Your task to perform on an android device: What is the recent news? Image 0: 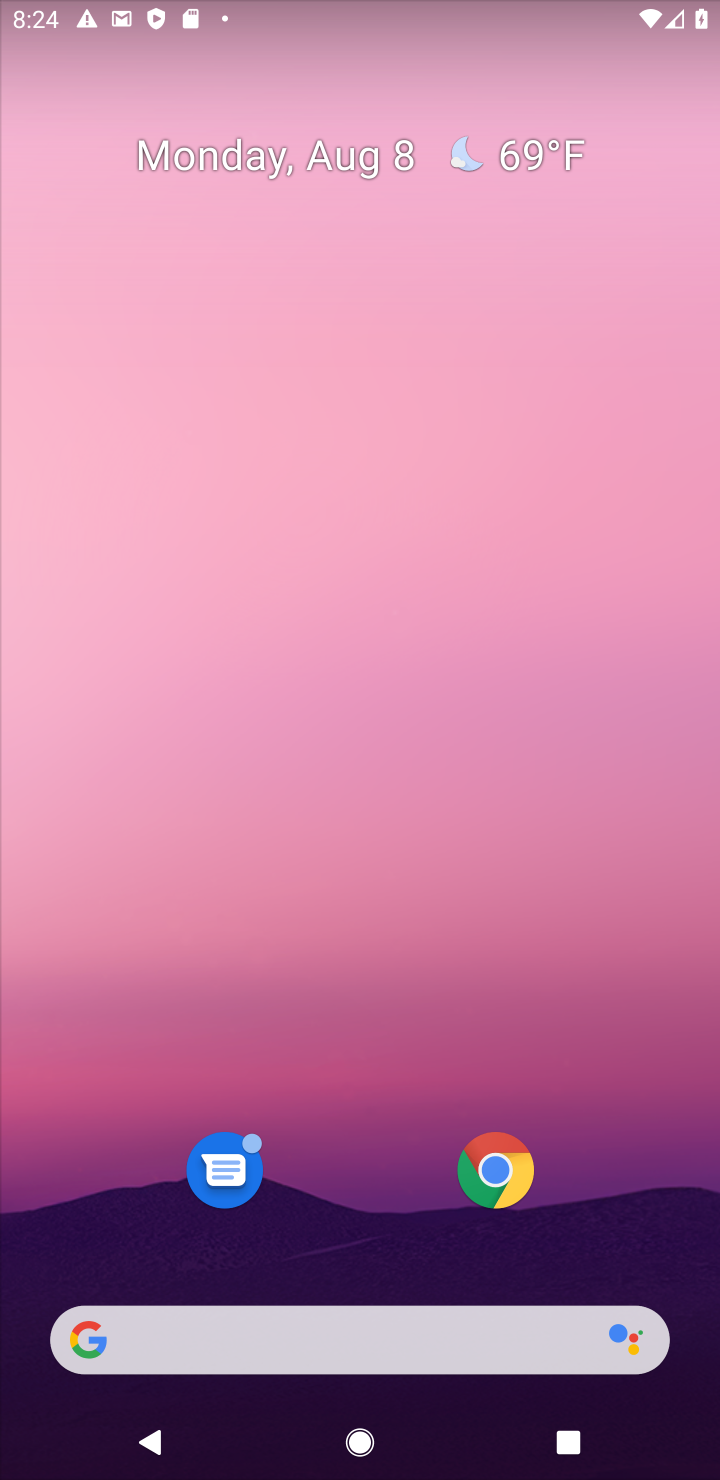
Step 0: click (467, 1333)
Your task to perform on an android device: What is the recent news? Image 1: 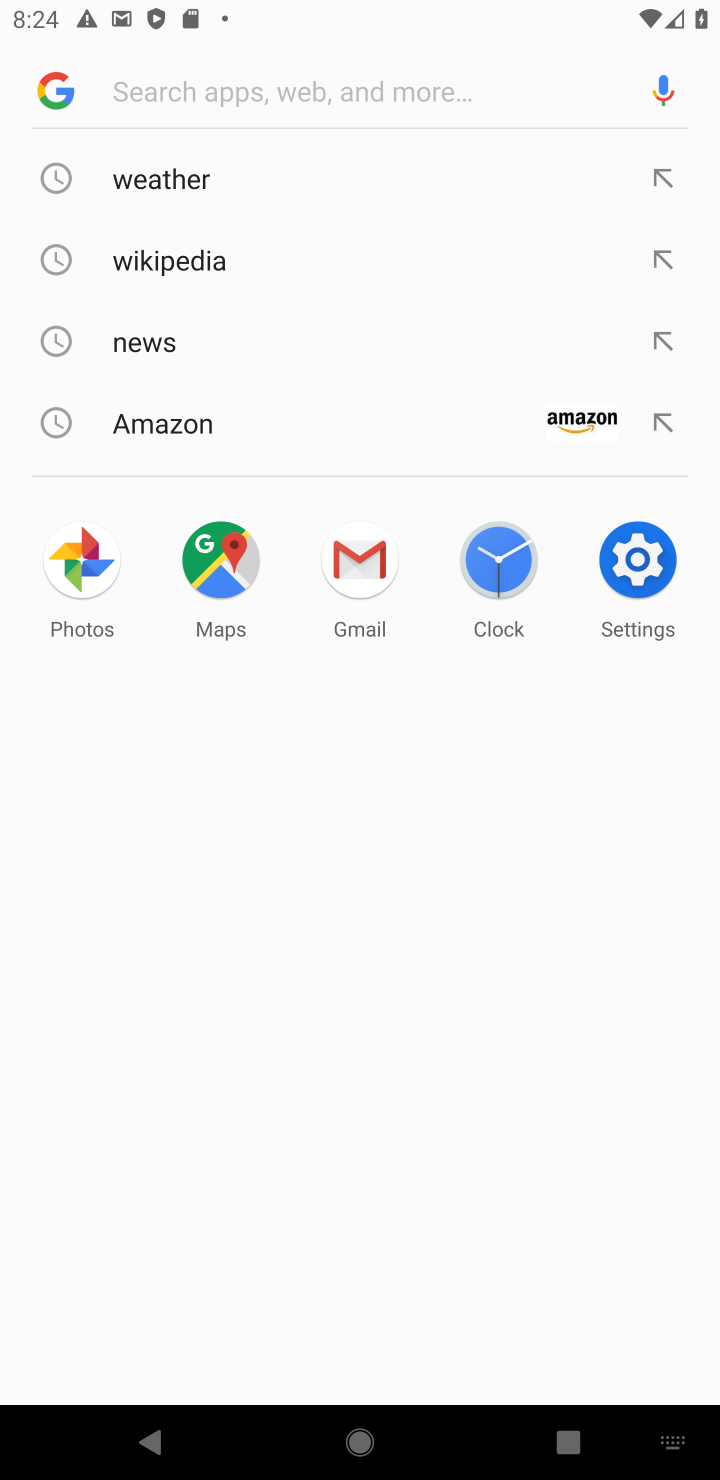
Step 1: click (215, 337)
Your task to perform on an android device: What is the recent news? Image 2: 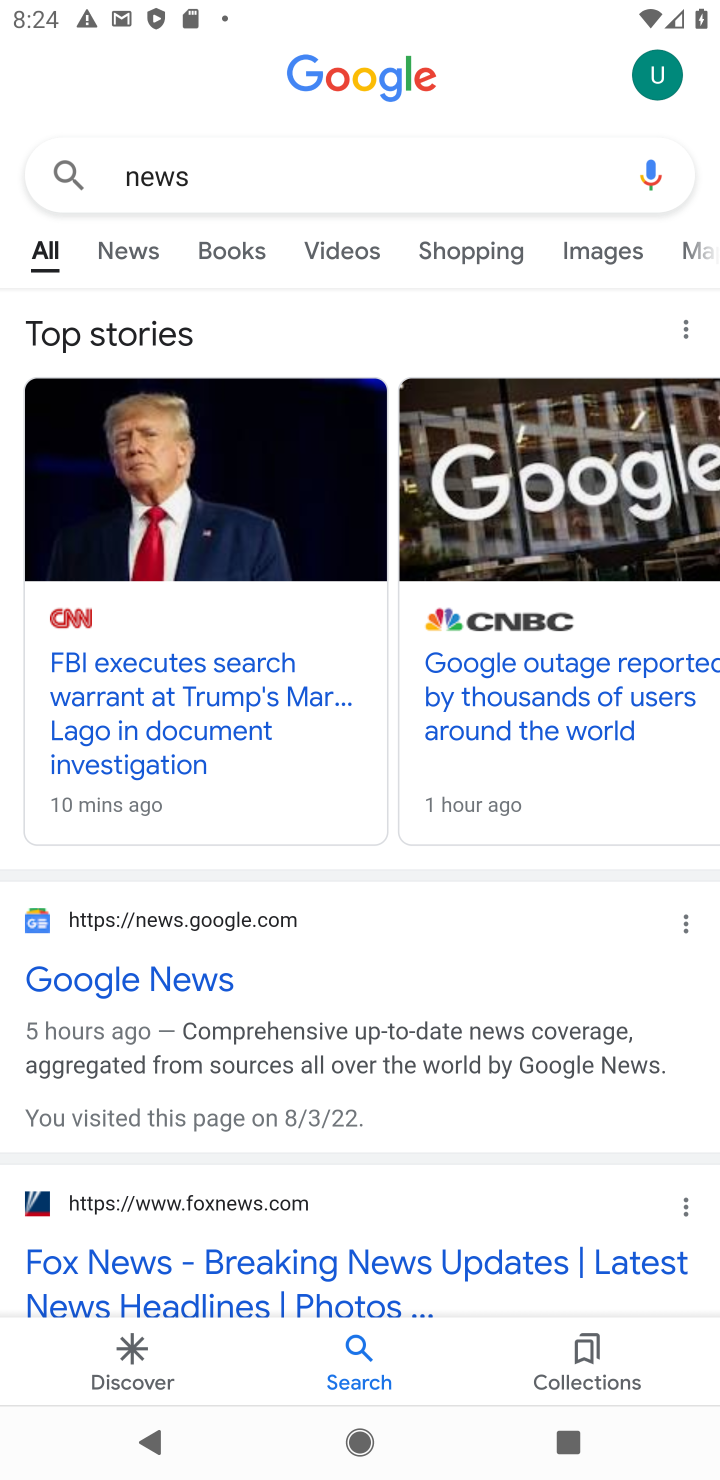
Step 2: task complete